Your task to perform on an android device: What's on my calendar today? Image 0: 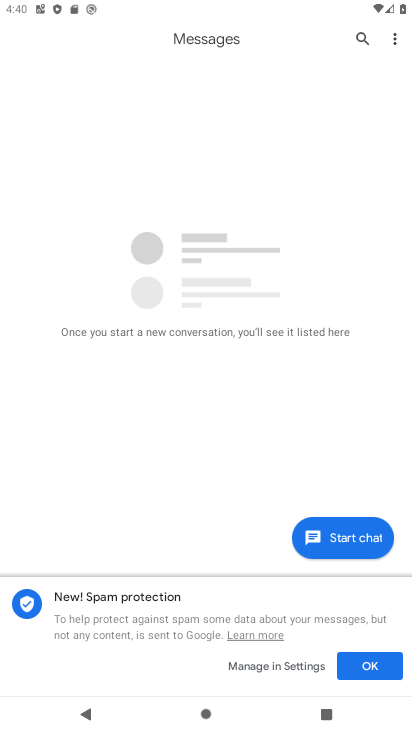
Step 0: press back button
Your task to perform on an android device: What's on my calendar today? Image 1: 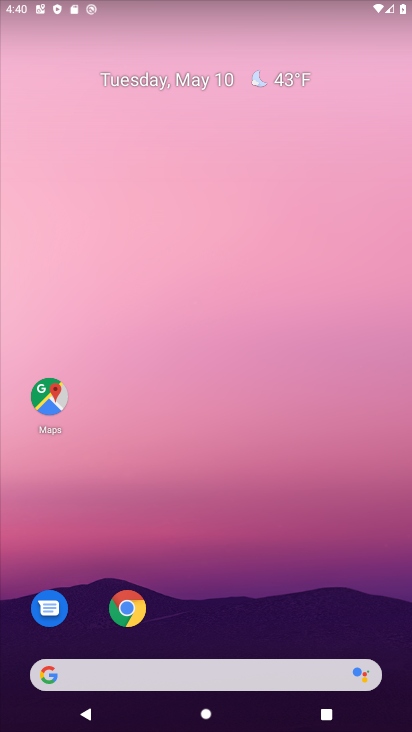
Step 1: drag from (213, 606) to (353, 61)
Your task to perform on an android device: What's on my calendar today? Image 2: 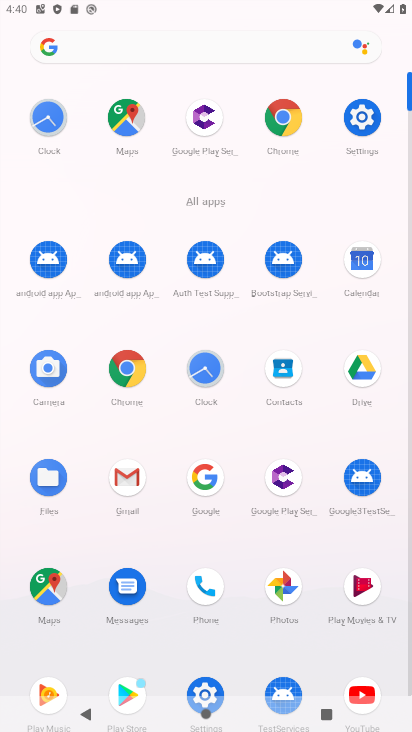
Step 2: click (364, 261)
Your task to perform on an android device: What's on my calendar today? Image 3: 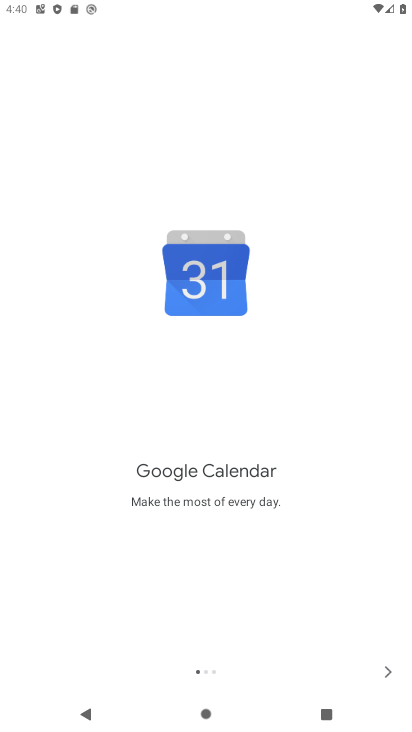
Step 3: click (379, 688)
Your task to perform on an android device: What's on my calendar today? Image 4: 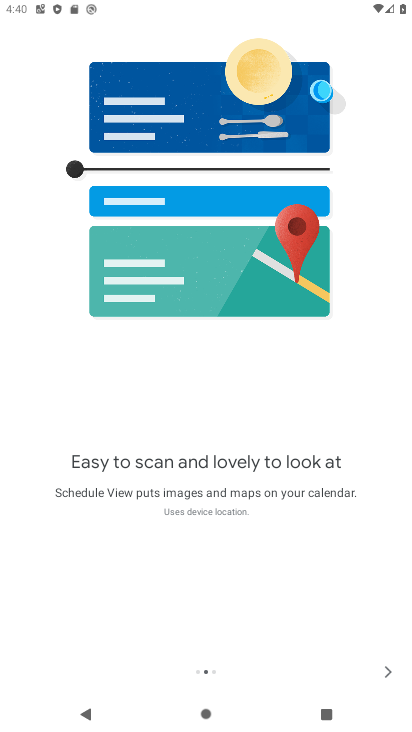
Step 4: click (382, 688)
Your task to perform on an android device: What's on my calendar today? Image 5: 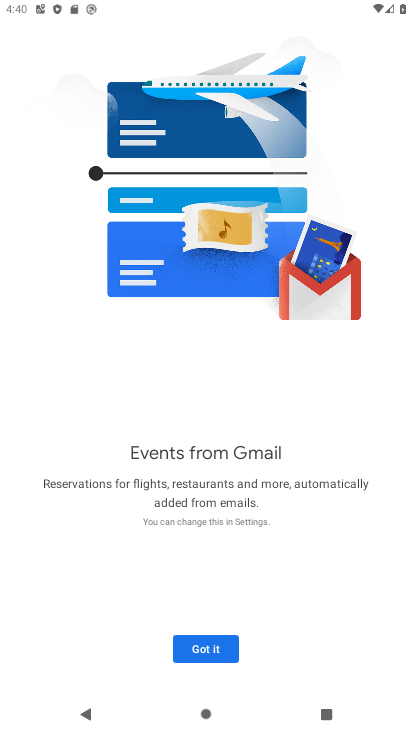
Step 5: click (213, 645)
Your task to perform on an android device: What's on my calendar today? Image 6: 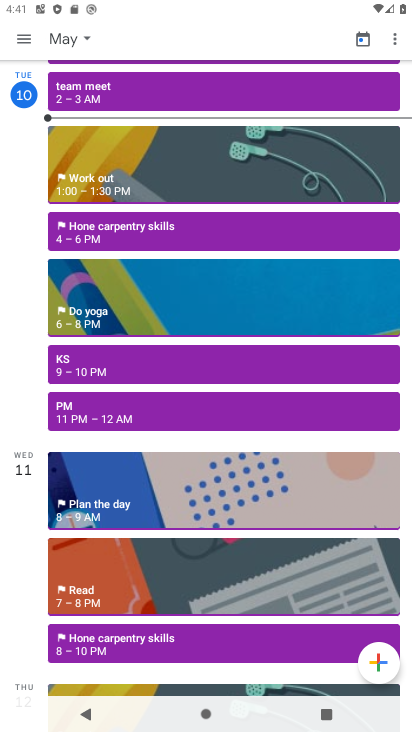
Step 6: click (97, 169)
Your task to perform on an android device: What's on my calendar today? Image 7: 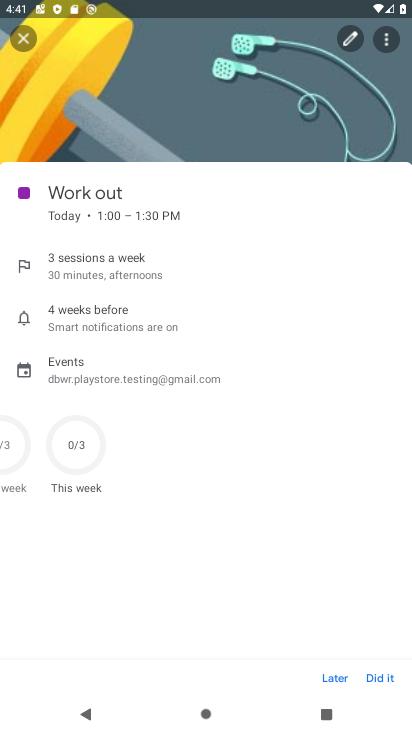
Step 7: task complete